Your task to perform on an android device: turn on showing notifications on the lock screen Image 0: 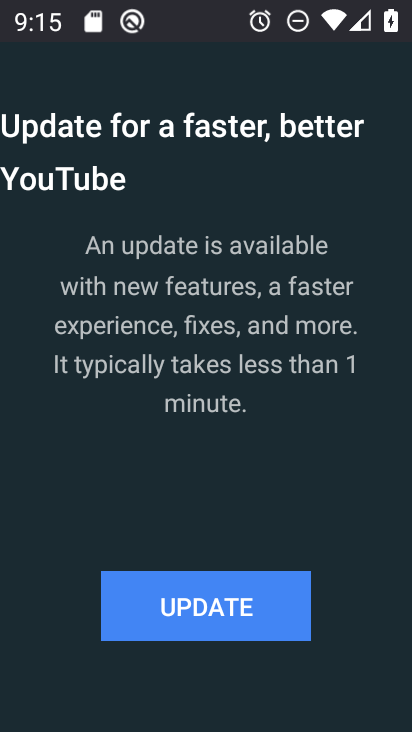
Step 0: press home button
Your task to perform on an android device: turn on showing notifications on the lock screen Image 1: 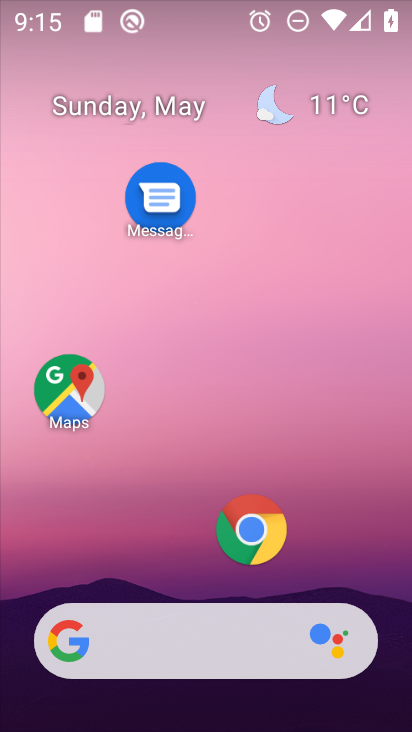
Step 1: drag from (195, 582) to (279, 45)
Your task to perform on an android device: turn on showing notifications on the lock screen Image 2: 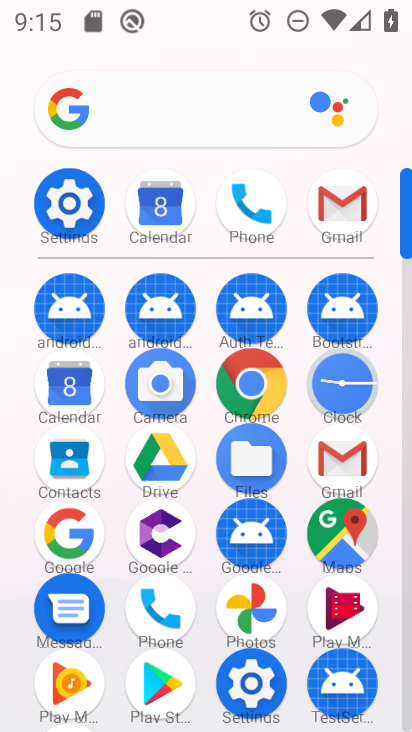
Step 2: click (66, 199)
Your task to perform on an android device: turn on showing notifications on the lock screen Image 3: 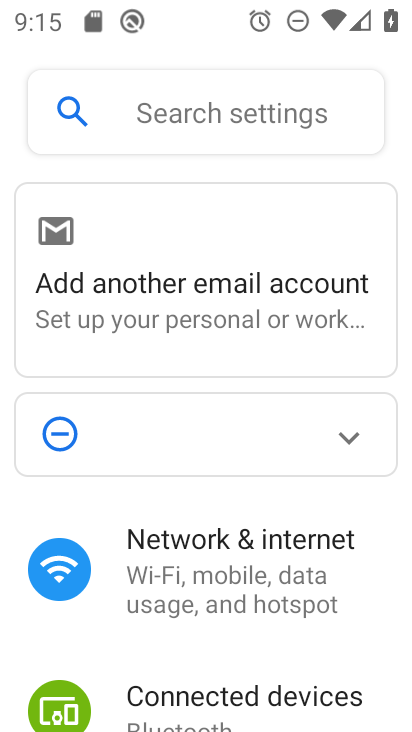
Step 3: drag from (230, 617) to (336, 153)
Your task to perform on an android device: turn on showing notifications on the lock screen Image 4: 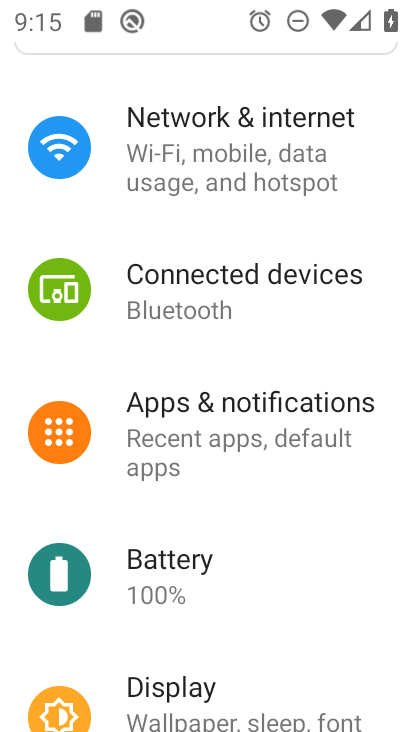
Step 4: click (250, 412)
Your task to perform on an android device: turn on showing notifications on the lock screen Image 5: 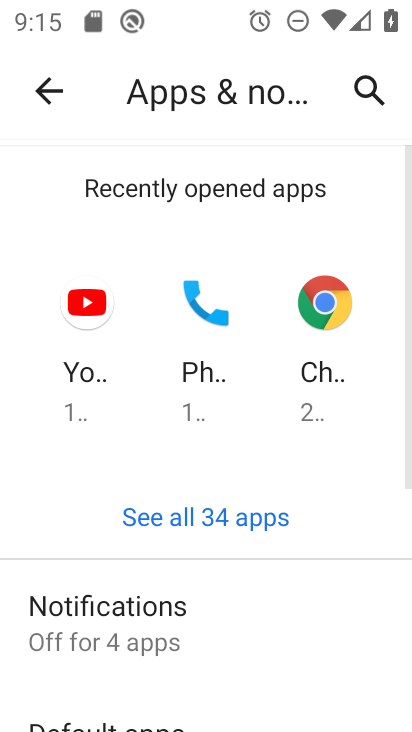
Step 5: click (206, 631)
Your task to perform on an android device: turn on showing notifications on the lock screen Image 6: 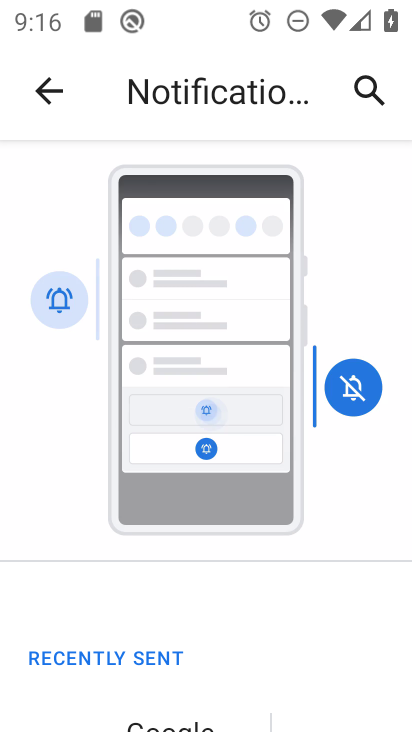
Step 6: drag from (223, 689) to (332, 181)
Your task to perform on an android device: turn on showing notifications on the lock screen Image 7: 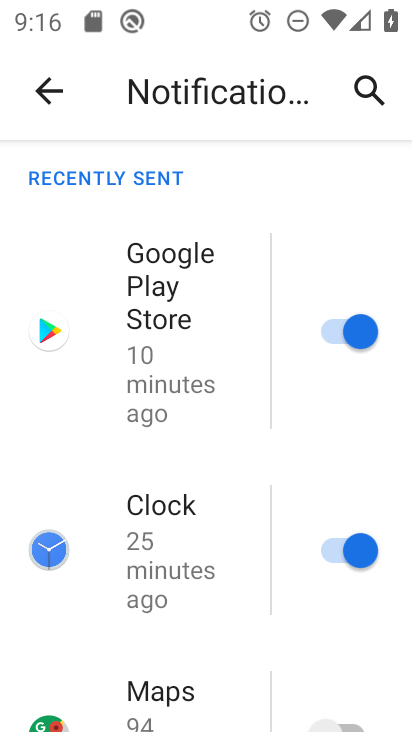
Step 7: drag from (223, 641) to (276, 133)
Your task to perform on an android device: turn on showing notifications on the lock screen Image 8: 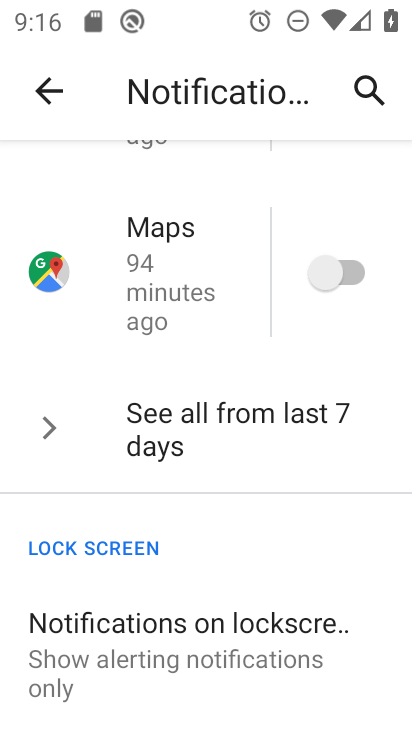
Step 8: click (340, 649)
Your task to perform on an android device: turn on showing notifications on the lock screen Image 9: 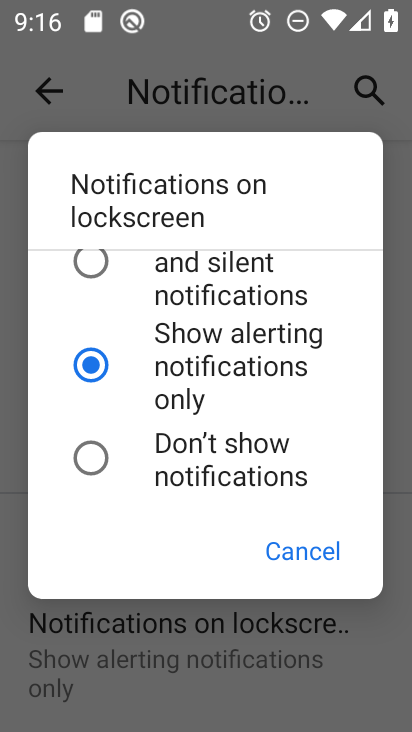
Step 9: click (91, 264)
Your task to perform on an android device: turn on showing notifications on the lock screen Image 10: 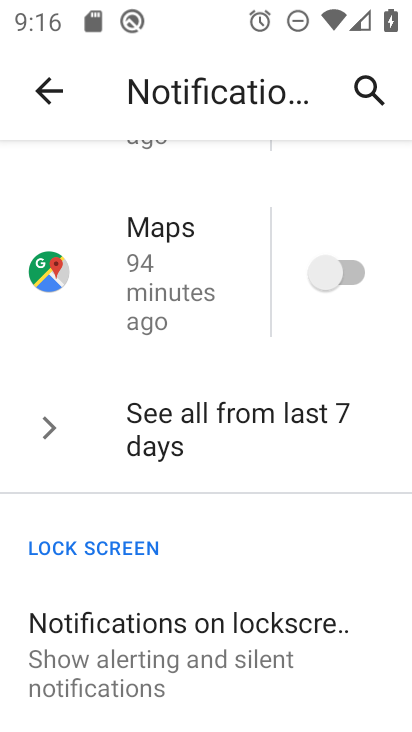
Step 10: task complete